Your task to perform on an android device: empty trash in google photos Image 0: 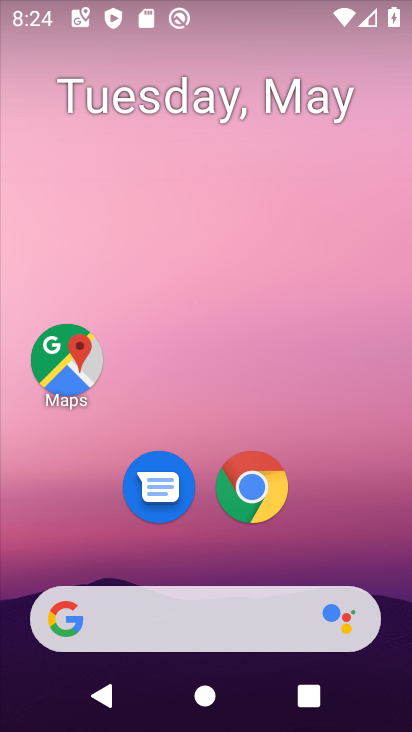
Step 0: drag from (367, 520) to (347, 232)
Your task to perform on an android device: empty trash in google photos Image 1: 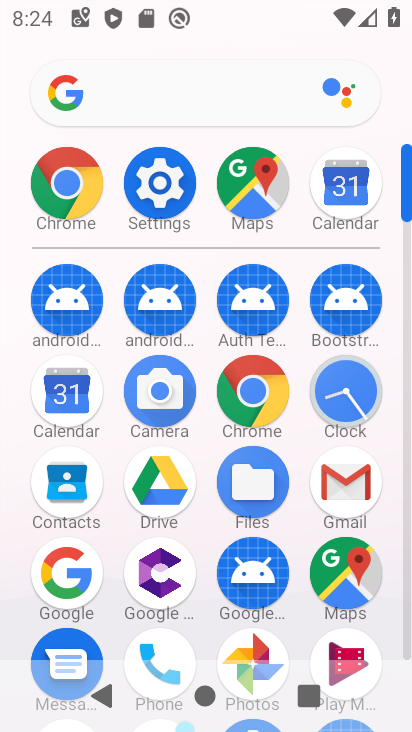
Step 1: drag from (299, 608) to (307, 381)
Your task to perform on an android device: empty trash in google photos Image 2: 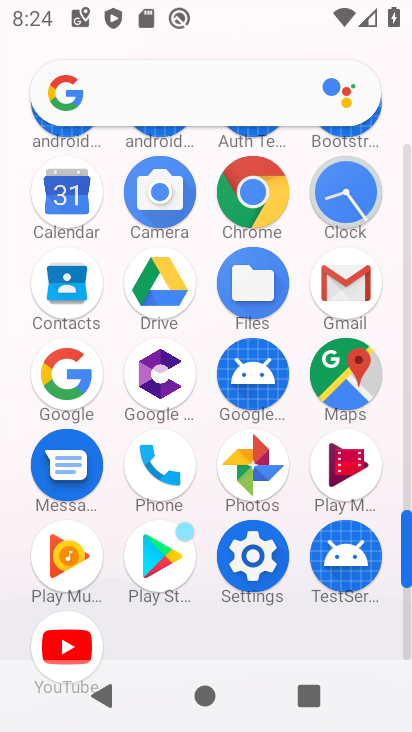
Step 2: click (264, 476)
Your task to perform on an android device: empty trash in google photos Image 3: 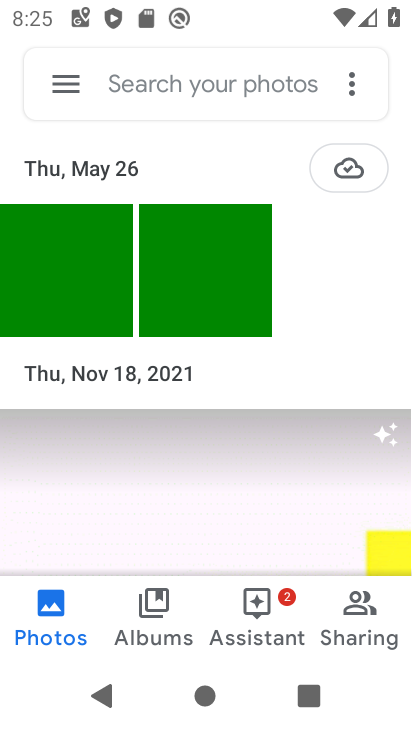
Step 3: click (65, 80)
Your task to perform on an android device: empty trash in google photos Image 4: 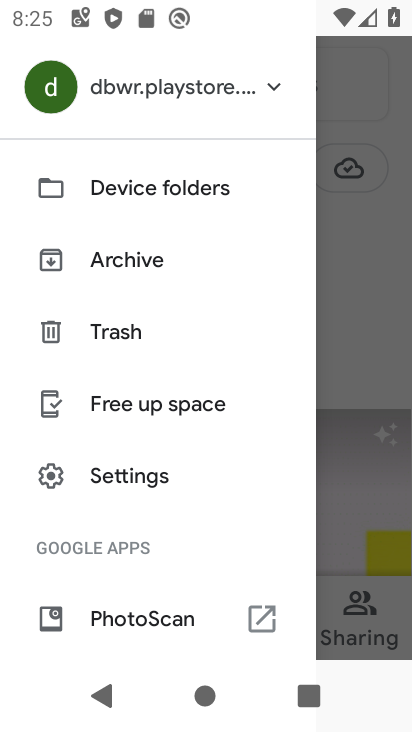
Step 4: click (140, 335)
Your task to perform on an android device: empty trash in google photos Image 5: 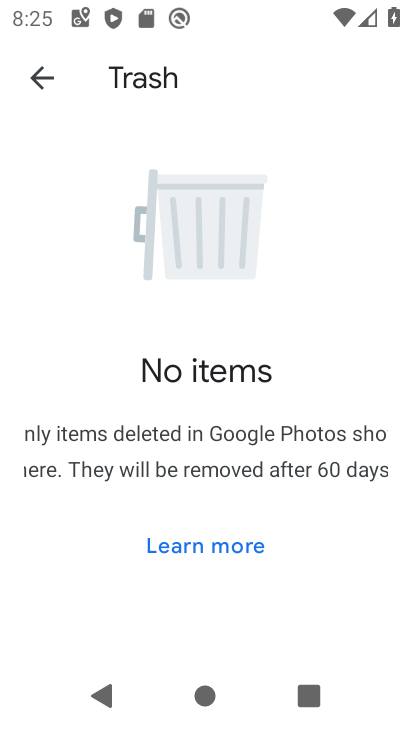
Step 5: task complete